Your task to perform on an android device: Go to settings Image 0: 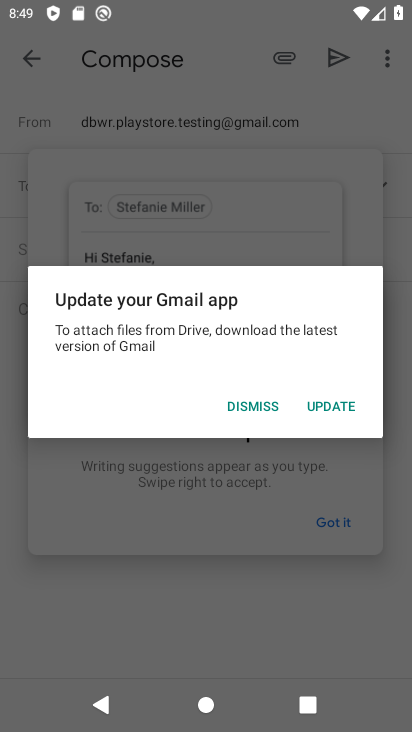
Step 0: press home button
Your task to perform on an android device: Go to settings Image 1: 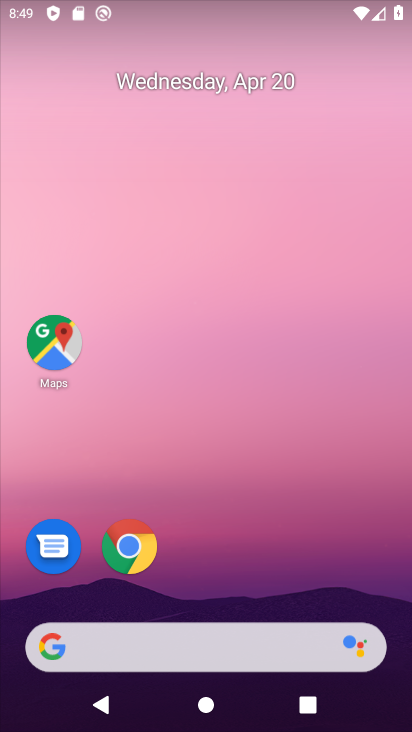
Step 1: drag from (208, 339) to (199, 39)
Your task to perform on an android device: Go to settings Image 2: 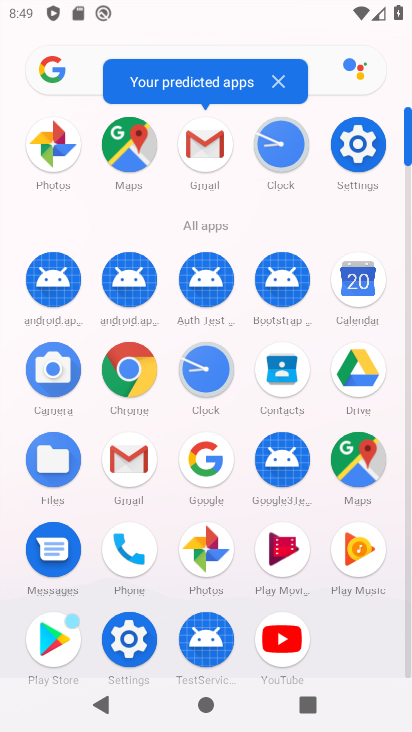
Step 2: click (361, 148)
Your task to perform on an android device: Go to settings Image 3: 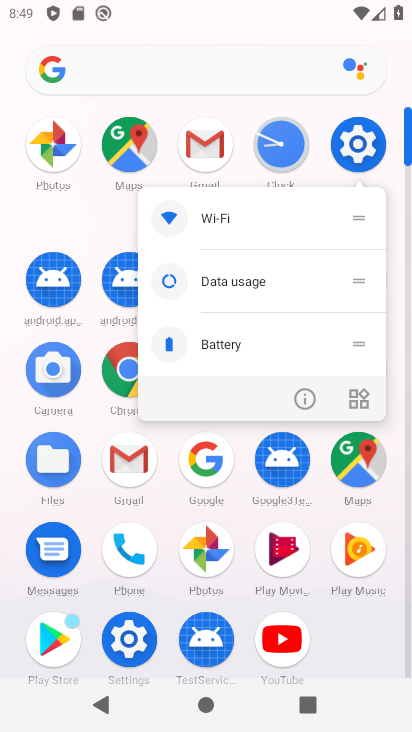
Step 3: click (357, 151)
Your task to perform on an android device: Go to settings Image 4: 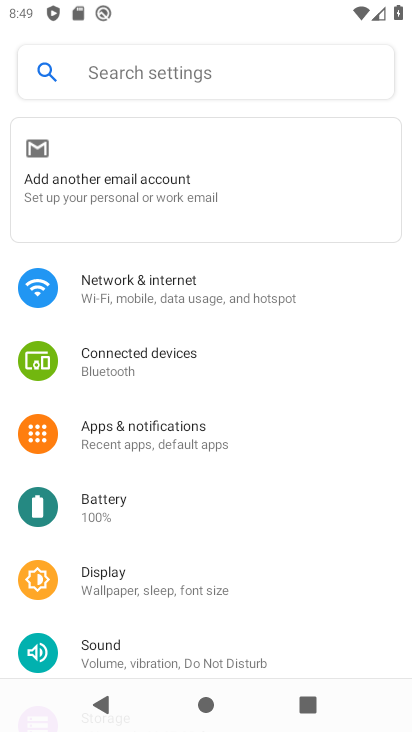
Step 4: task complete